Your task to perform on an android device: Open the stopwatch Image 0: 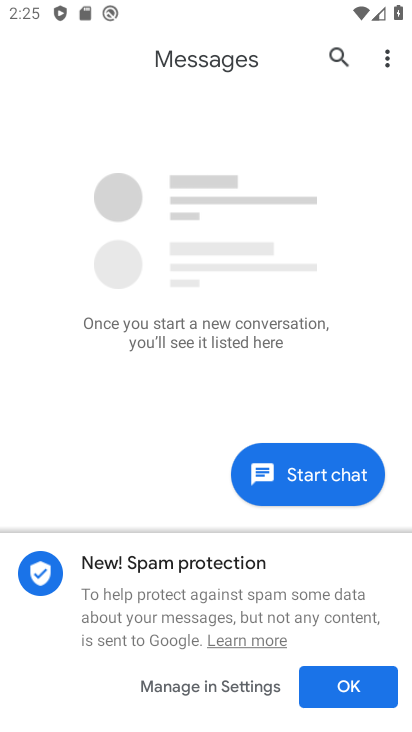
Step 0: press back button
Your task to perform on an android device: Open the stopwatch Image 1: 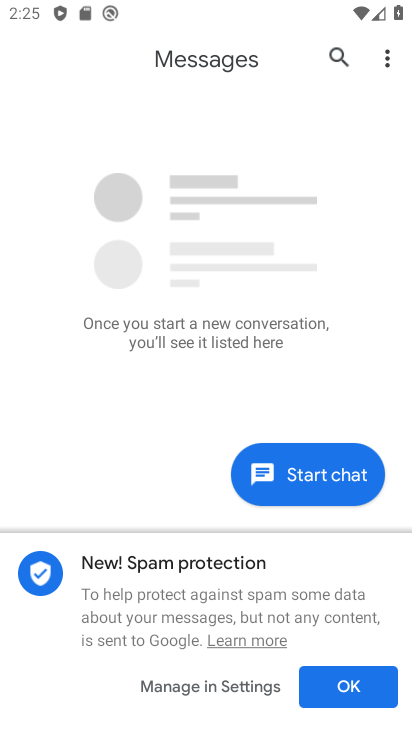
Step 1: press back button
Your task to perform on an android device: Open the stopwatch Image 2: 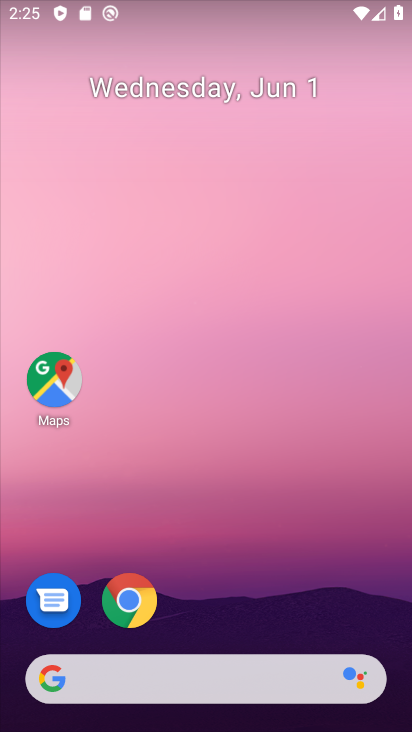
Step 2: drag from (260, 698) to (165, 90)
Your task to perform on an android device: Open the stopwatch Image 3: 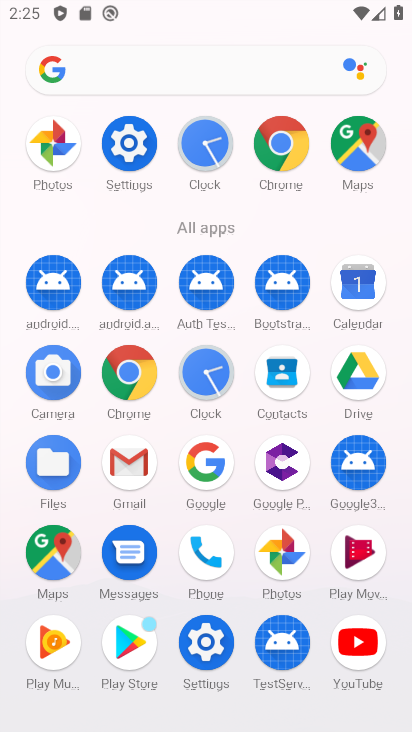
Step 3: click (211, 150)
Your task to perform on an android device: Open the stopwatch Image 4: 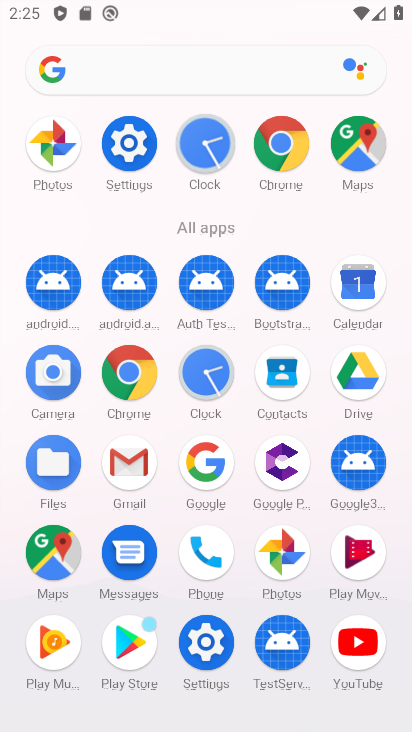
Step 4: click (211, 150)
Your task to perform on an android device: Open the stopwatch Image 5: 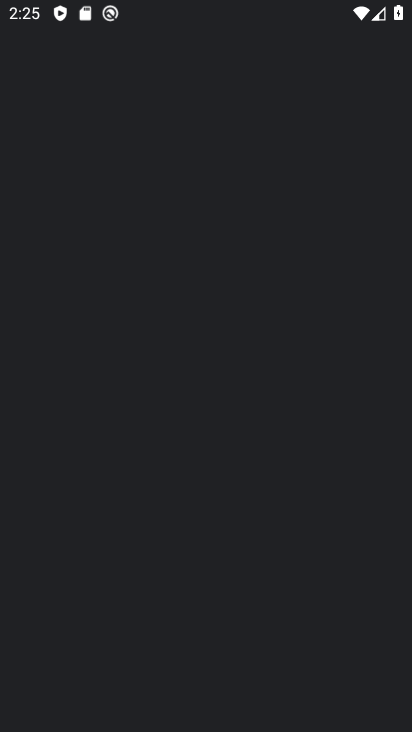
Step 5: click (212, 149)
Your task to perform on an android device: Open the stopwatch Image 6: 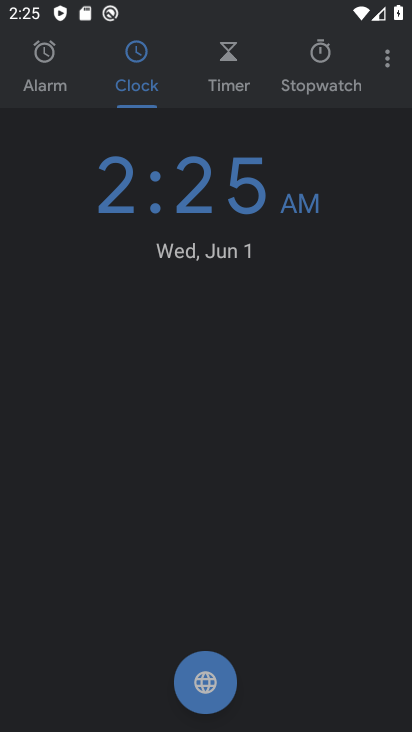
Step 6: click (212, 149)
Your task to perform on an android device: Open the stopwatch Image 7: 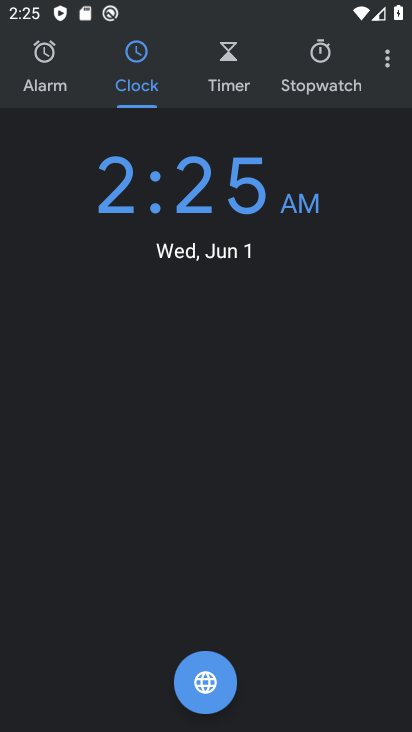
Step 7: click (318, 64)
Your task to perform on an android device: Open the stopwatch Image 8: 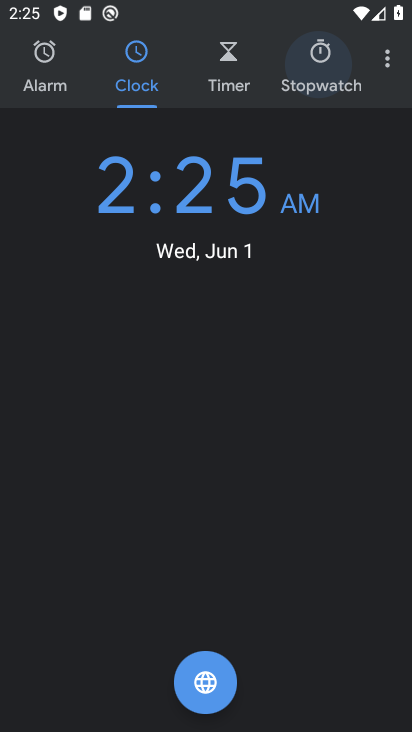
Step 8: click (318, 63)
Your task to perform on an android device: Open the stopwatch Image 9: 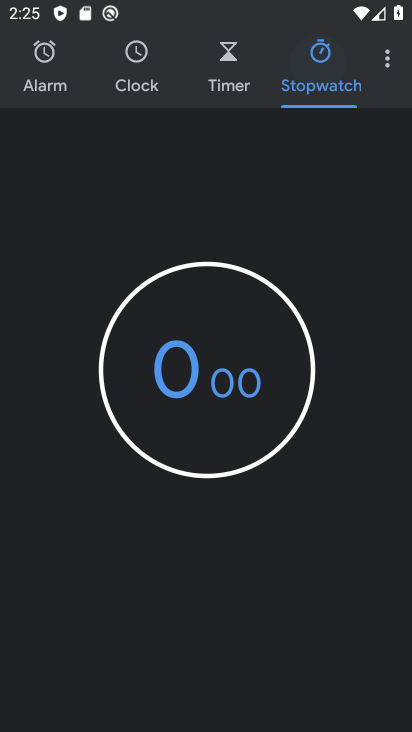
Step 9: click (319, 62)
Your task to perform on an android device: Open the stopwatch Image 10: 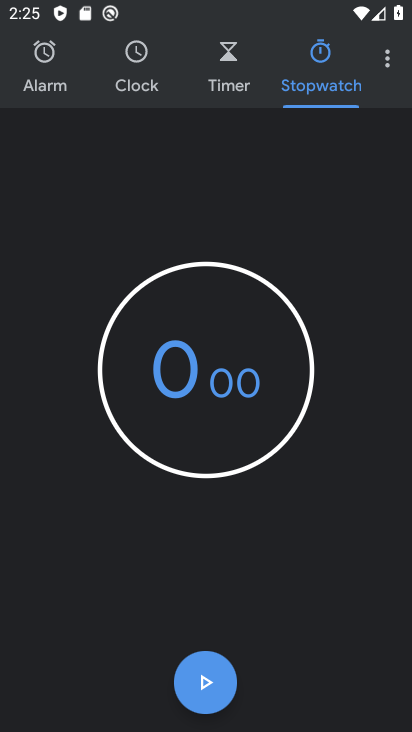
Step 10: click (198, 682)
Your task to perform on an android device: Open the stopwatch Image 11: 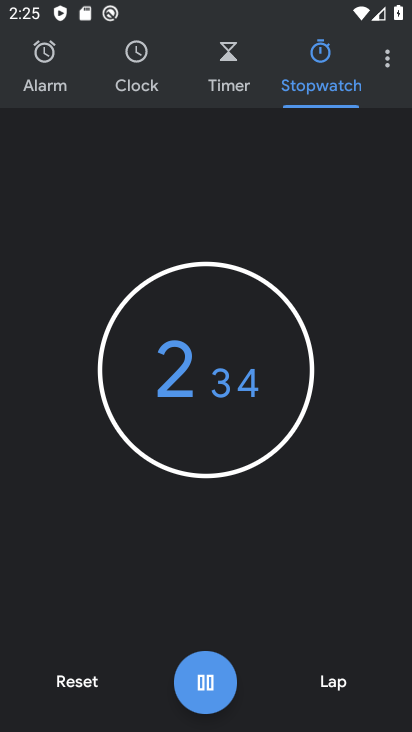
Step 11: click (207, 676)
Your task to perform on an android device: Open the stopwatch Image 12: 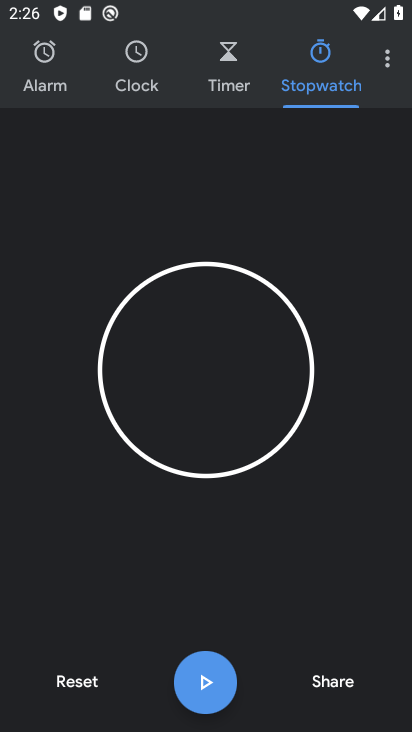
Step 12: task complete